Your task to perform on an android device: Open the stopwatch Image 0: 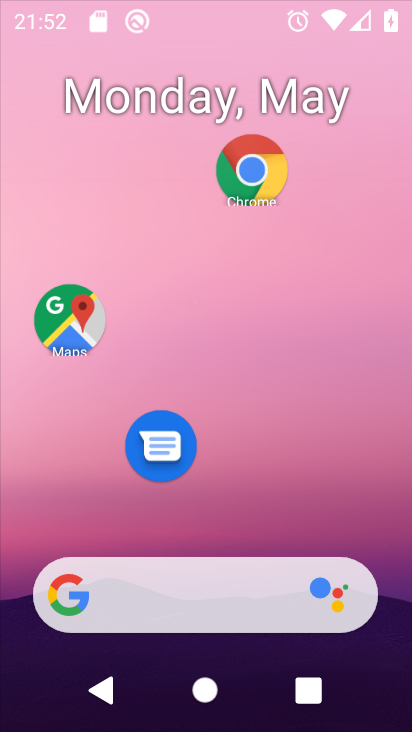
Step 0: press home button
Your task to perform on an android device: Open the stopwatch Image 1: 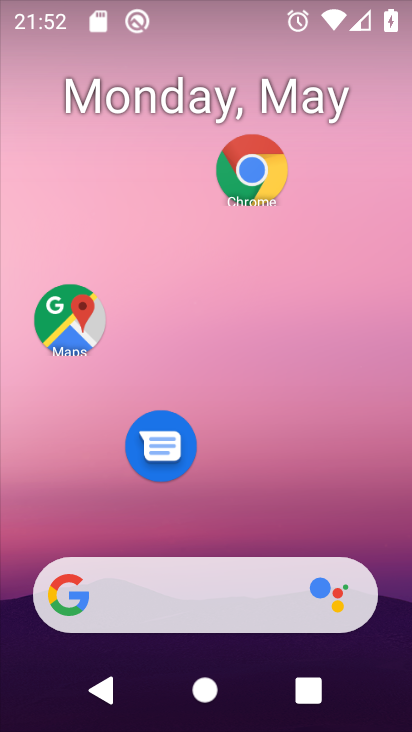
Step 1: drag from (242, 527) to (281, 90)
Your task to perform on an android device: Open the stopwatch Image 2: 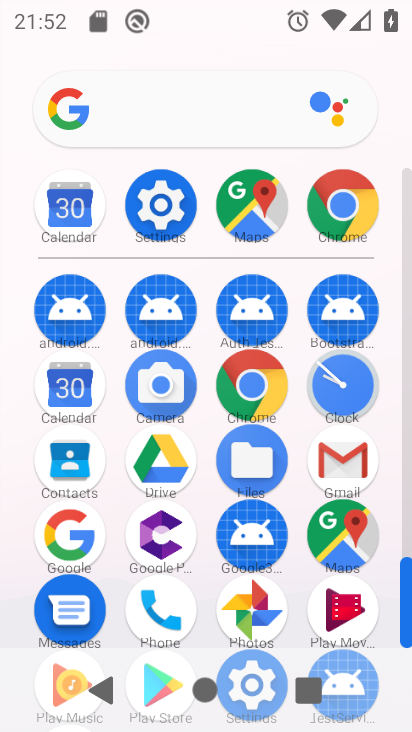
Step 2: click (331, 388)
Your task to perform on an android device: Open the stopwatch Image 3: 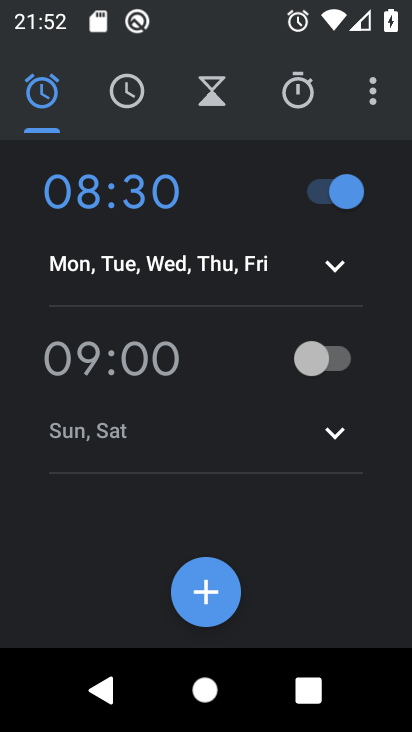
Step 3: click (302, 92)
Your task to perform on an android device: Open the stopwatch Image 4: 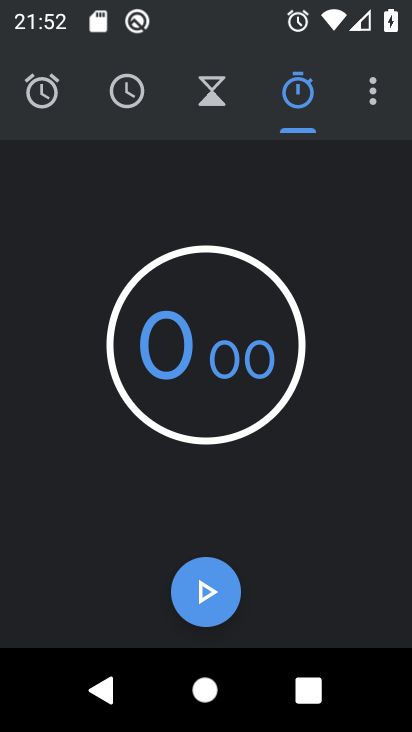
Step 4: click (197, 598)
Your task to perform on an android device: Open the stopwatch Image 5: 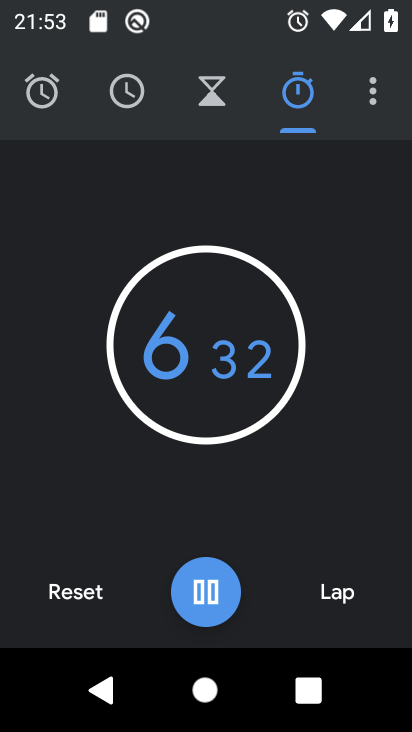
Step 5: click (81, 586)
Your task to perform on an android device: Open the stopwatch Image 6: 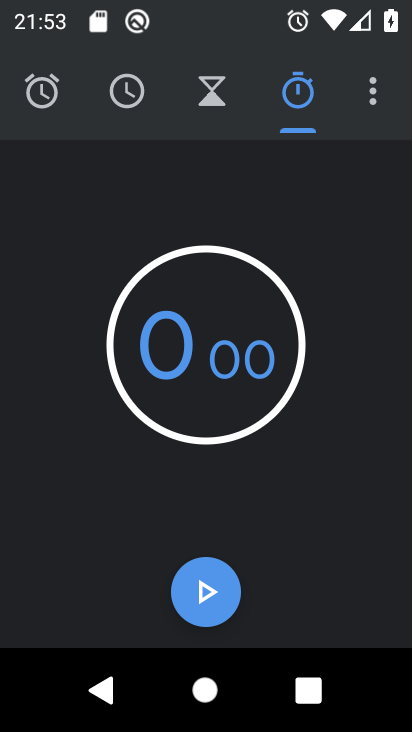
Step 6: task complete